Your task to perform on an android device: turn on javascript in the chrome app Image 0: 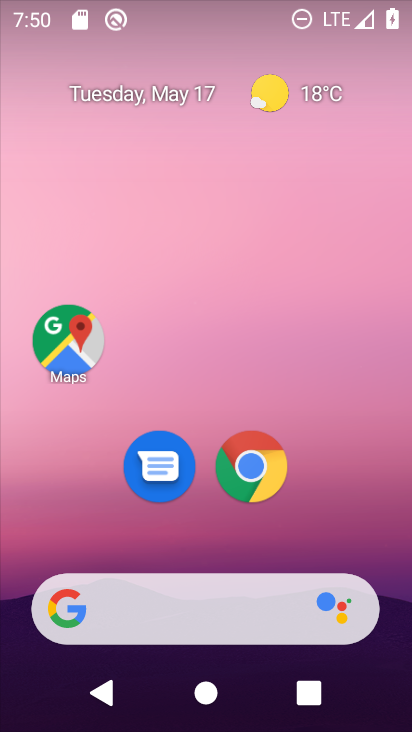
Step 0: press home button
Your task to perform on an android device: turn on javascript in the chrome app Image 1: 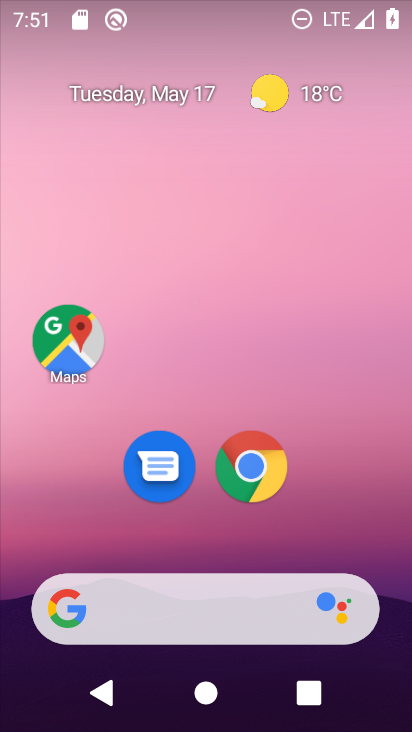
Step 1: click (228, 474)
Your task to perform on an android device: turn on javascript in the chrome app Image 2: 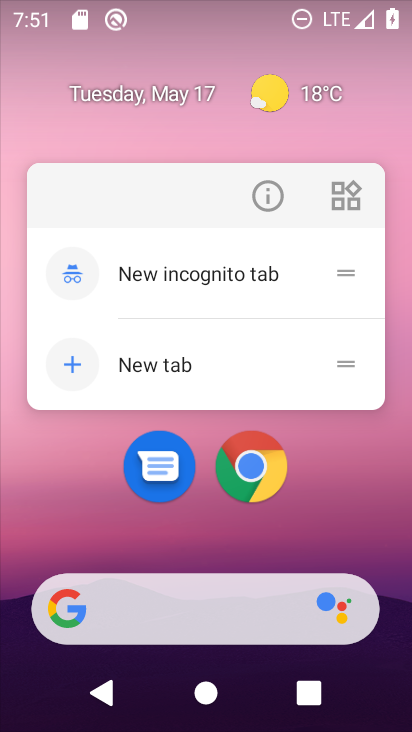
Step 2: click (245, 468)
Your task to perform on an android device: turn on javascript in the chrome app Image 3: 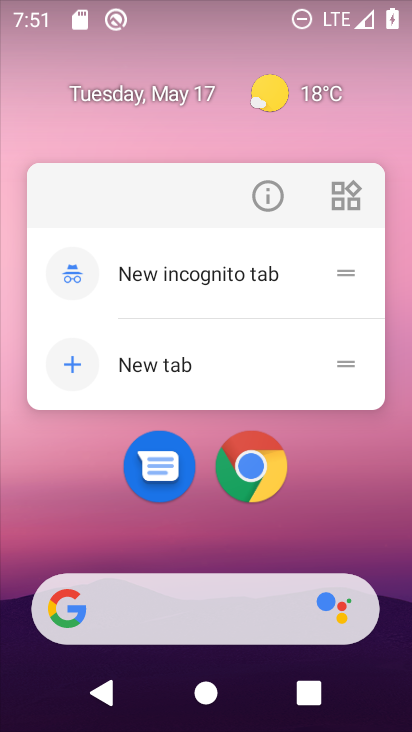
Step 3: click (251, 481)
Your task to perform on an android device: turn on javascript in the chrome app Image 4: 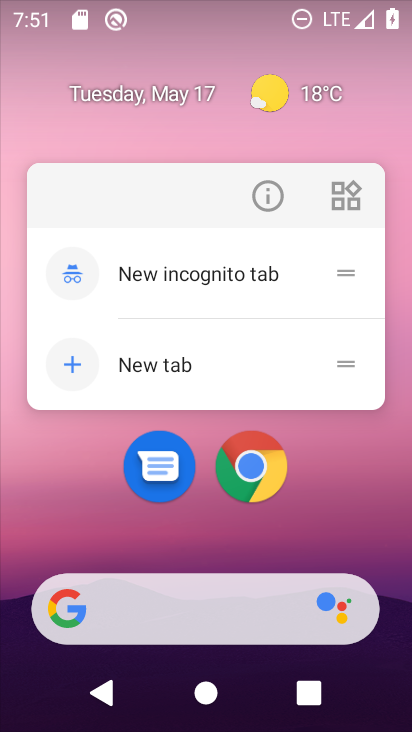
Step 4: click (265, 480)
Your task to perform on an android device: turn on javascript in the chrome app Image 5: 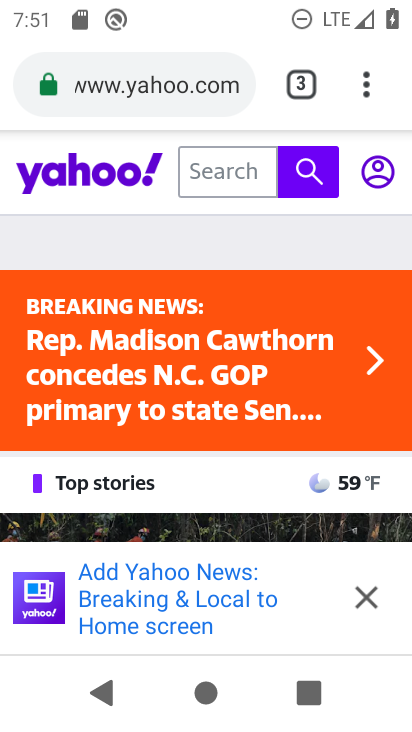
Step 5: drag from (370, 83) to (210, 518)
Your task to perform on an android device: turn on javascript in the chrome app Image 6: 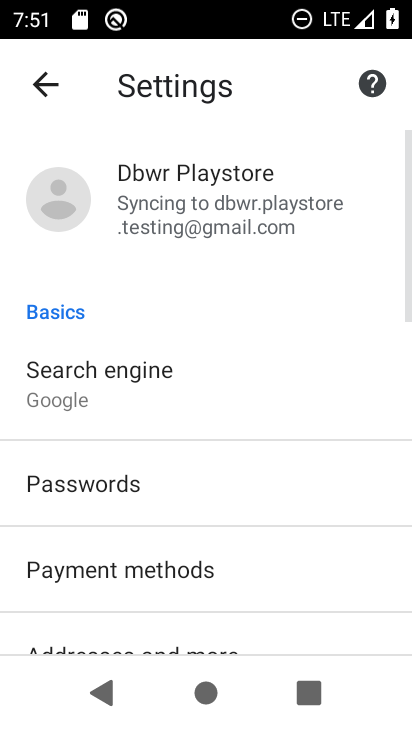
Step 6: drag from (197, 577) to (270, 139)
Your task to perform on an android device: turn on javascript in the chrome app Image 7: 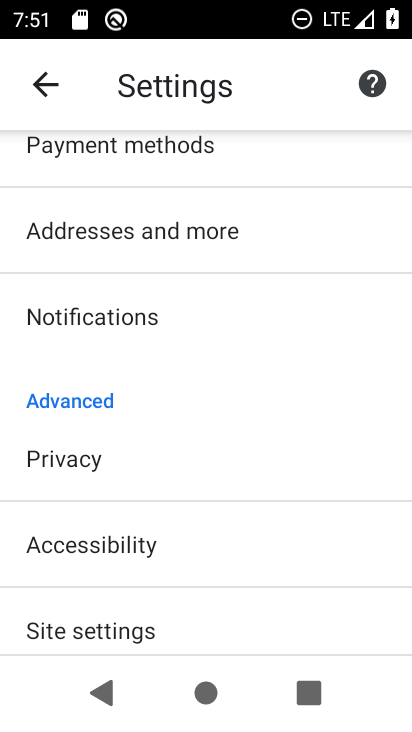
Step 7: click (152, 631)
Your task to perform on an android device: turn on javascript in the chrome app Image 8: 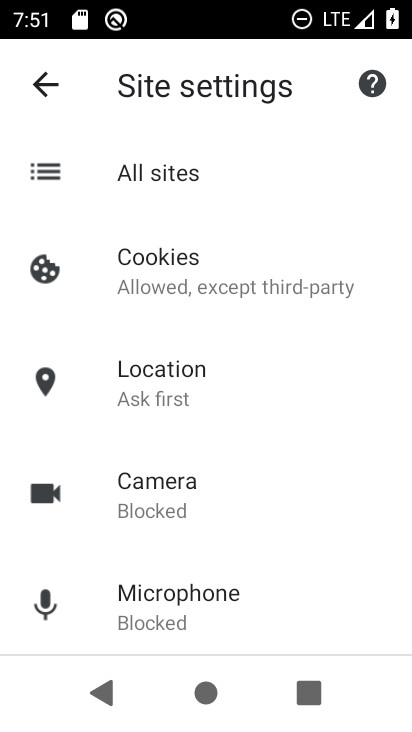
Step 8: drag from (276, 574) to (301, 202)
Your task to perform on an android device: turn on javascript in the chrome app Image 9: 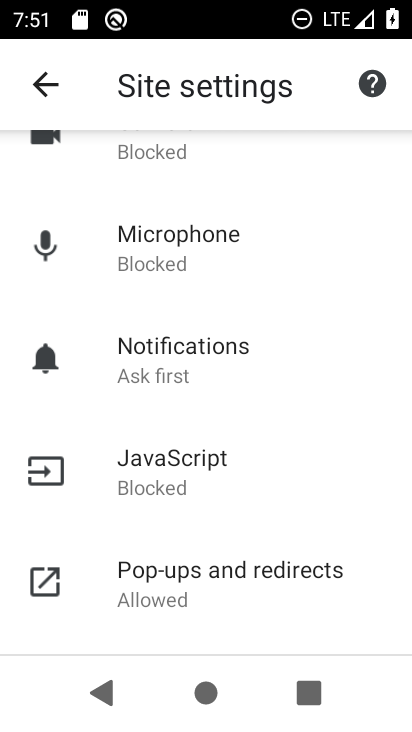
Step 9: click (185, 477)
Your task to perform on an android device: turn on javascript in the chrome app Image 10: 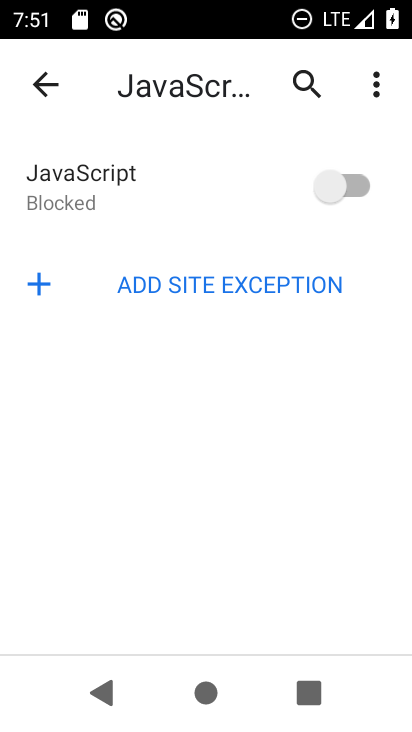
Step 10: click (358, 180)
Your task to perform on an android device: turn on javascript in the chrome app Image 11: 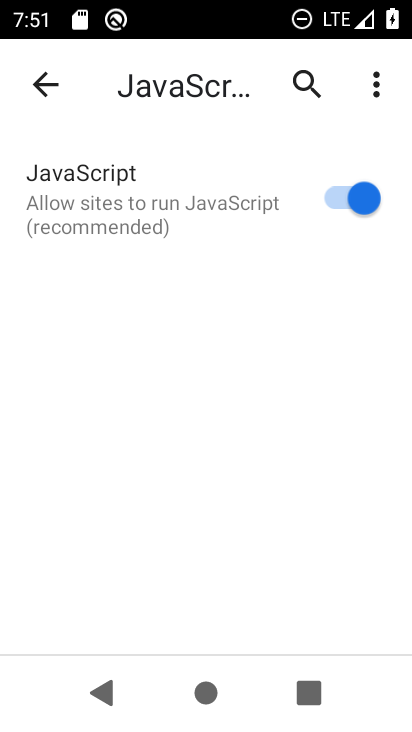
Step 11: task complete